Your task to perform on an android device: open app "McDonald's" (install if not already installed) and go to login screen Image 0: 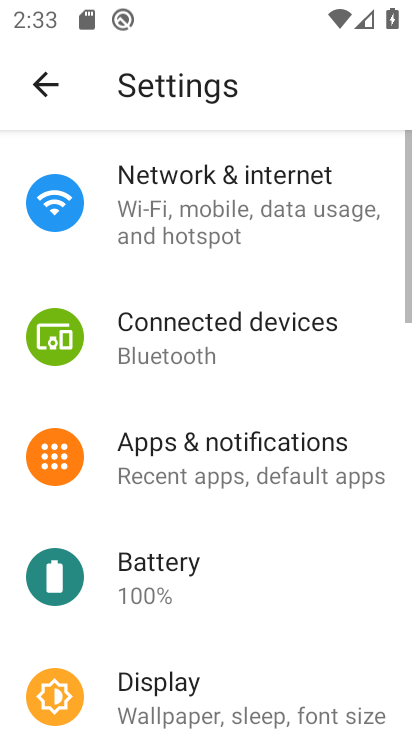
Step 0: press home button
Your task to perform on an android device: open app "McDonald's" (install if not already installed) and go to login screen Image 1: 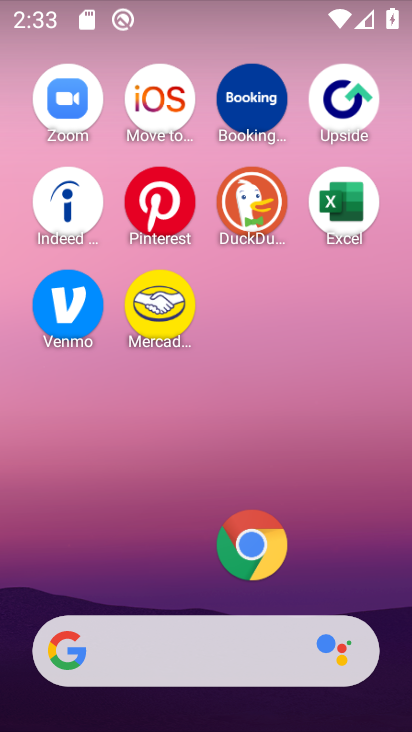
Step 1: drag from (151, 444) to (208, 71)
Your task to perform on an android device: open app "McDonald's" (install if not already installed) and go to login screen Image 2: 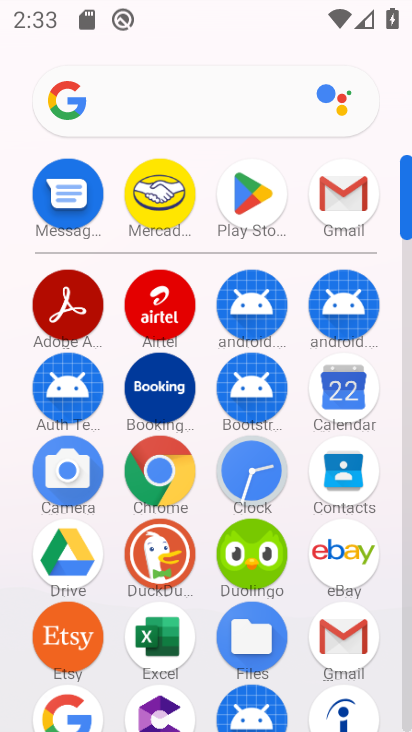
Step 2: drag from (187, 660) to (291, 89)
Your task to perform on an android device: open app "McDonald's" (install if not already installed) and go to login screen Image 3: 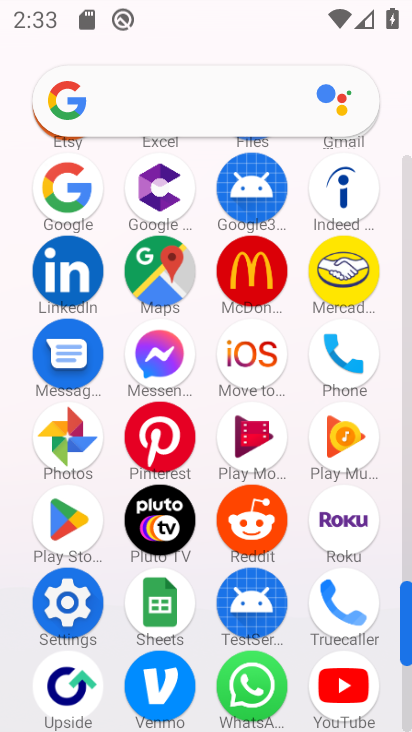
Step 3: click (248, 265)
Your task to perform on an android device: open app "McDonald's" (install if not already installed) and go to login screen Image 4: 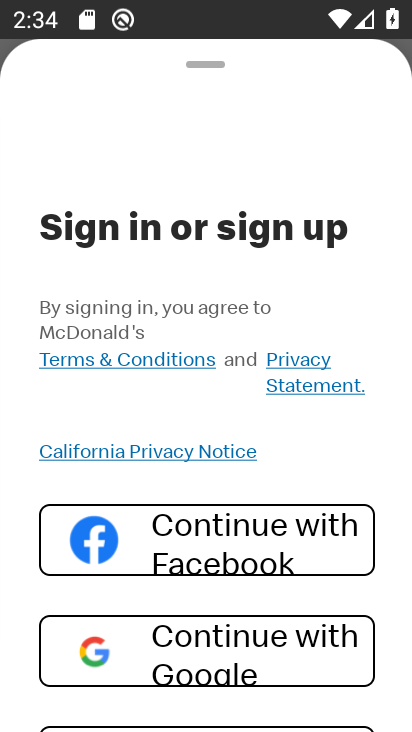
Step 4: press home button
Your task to perform on an android device: open app "McDonald's" (install if not already installed) and go to login screen Image 5: 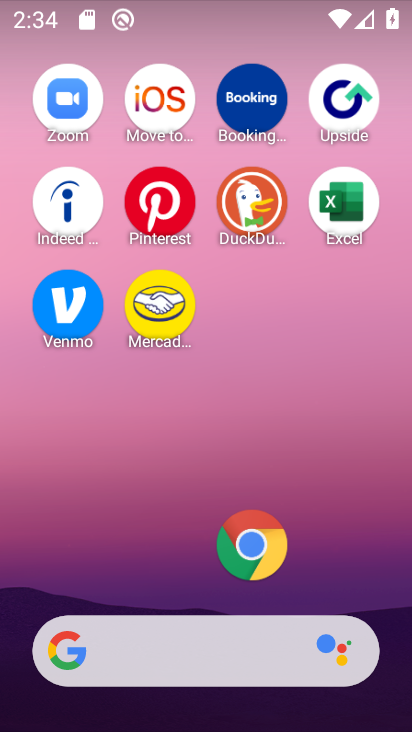
Step 5: drag from (189, 501) to (269, 37)
Your task to perform on an android device: open app "McDonald's" (install if not already installed) and go to login screen Image 6: 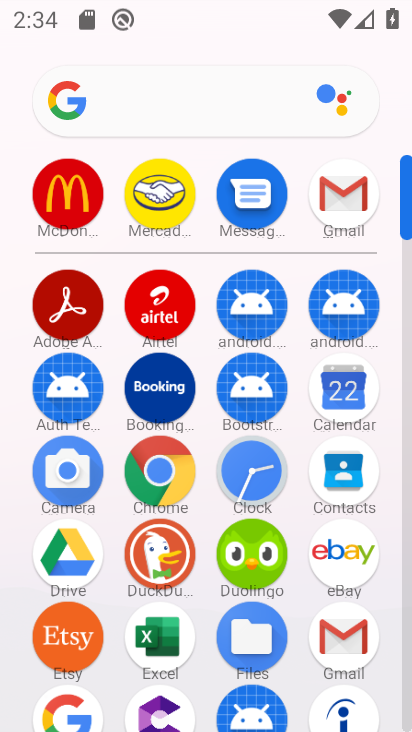
Step 6: click (68, 205)
Your task to perform on an android device: open app "McDonald's" (install if not already installed) and go to login screen Image 7: 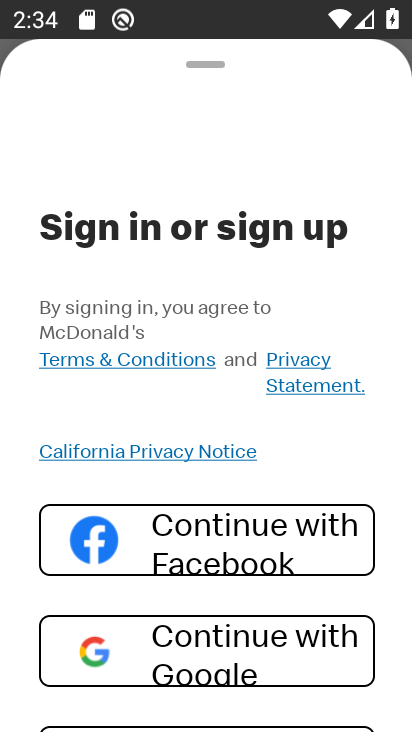
Step 7: task complete